Your task to perform on an android device: What's the weather going to be tomorrow? Image 0: 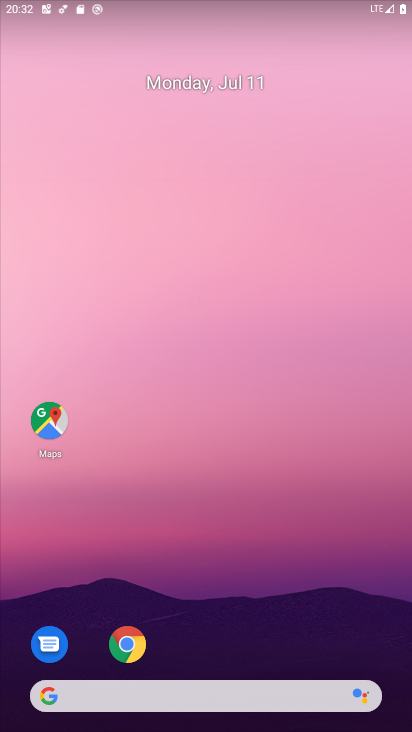
Step 0: drag from (255, 637) to (247, 1)
Your task to perform on an android device: What's the weather going to be tomorrow? Image 1: 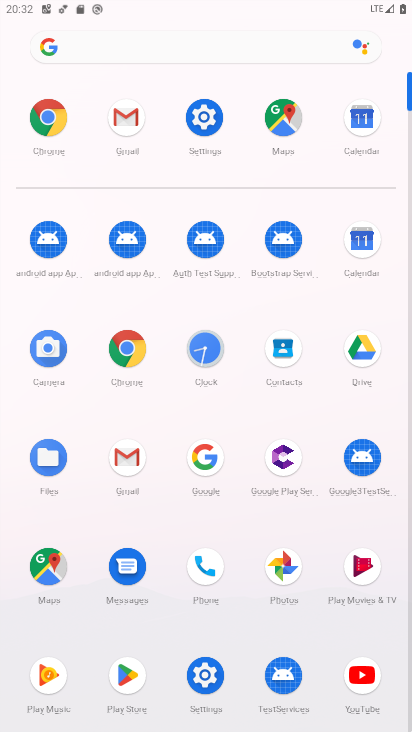
Step 1: click (44, 122)
Your task to perform on an android device: What's the weather going to be tomorrow? Image 2: 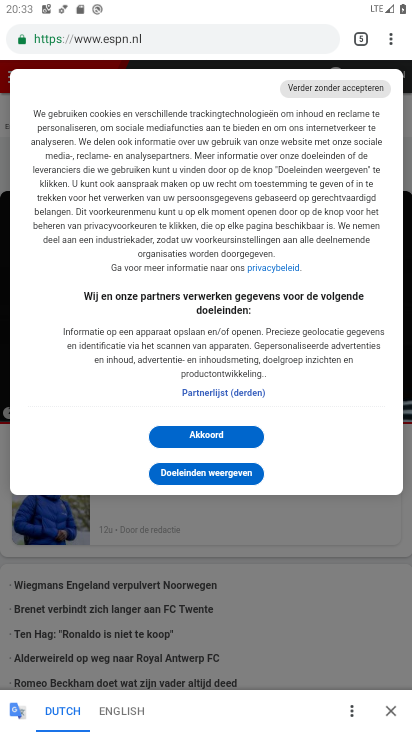
Step 2: click (395, 43)
Your task to perform on an android device: What's the weather going to be tomorrow? Image 3: 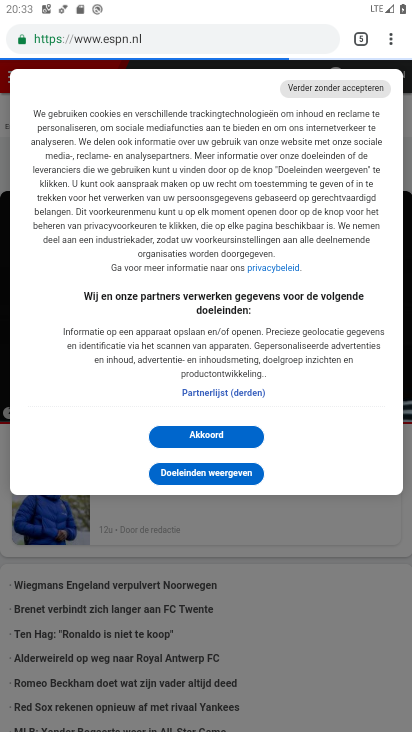
Step 3: click (386, 37)
Your task to perform on an android device: What's the weather going to be tomorrow? Image 4: 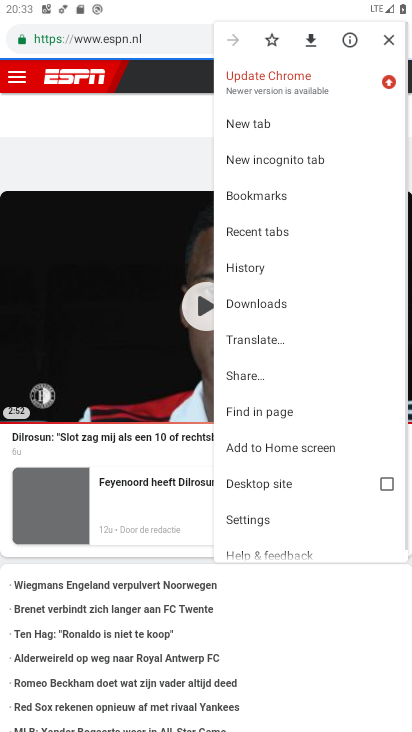
Step 4: click (266, 130)
Your task to perform on an android device: What's the weather going to be tomorrow? Image 5: 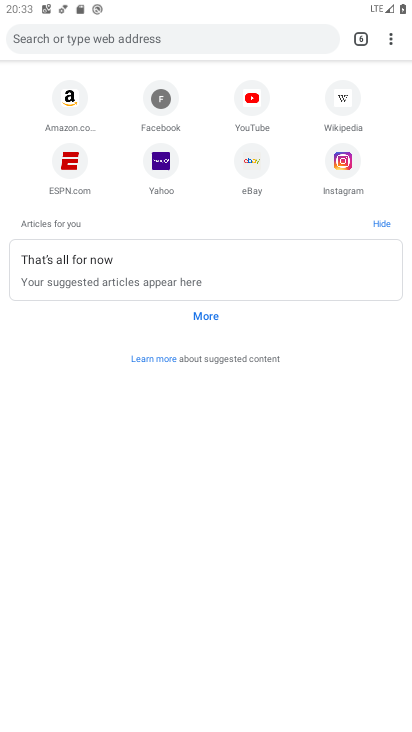
Step 5: click (120, 33)
Your task to perform on an android device: What's the weather going to be tomorrow? Image 6: 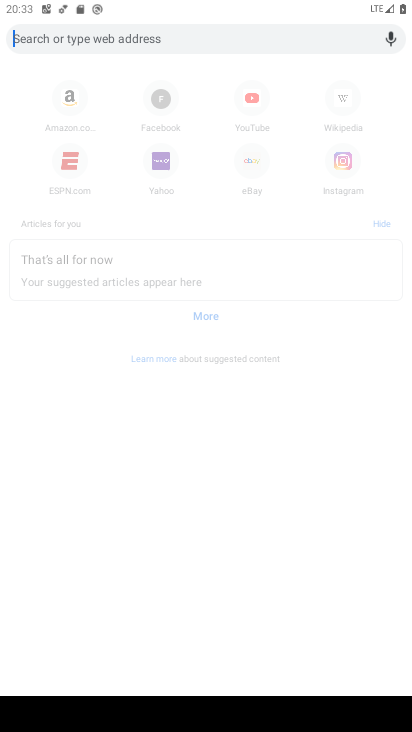
Step 6: type "What's the weather going to be tomorrow "
Your task to perform on an android device: What's the weather going to be tomorrow? Image 7: 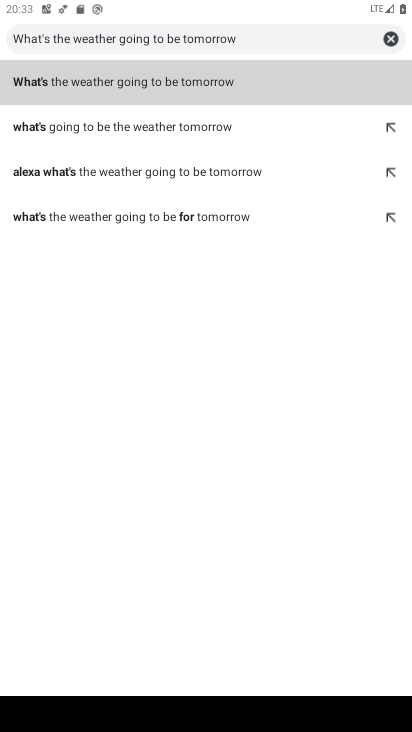
Step 7: click (152, 74)
Your task to perform on an android device: What's the weather going to be tomorrow? Image 8: 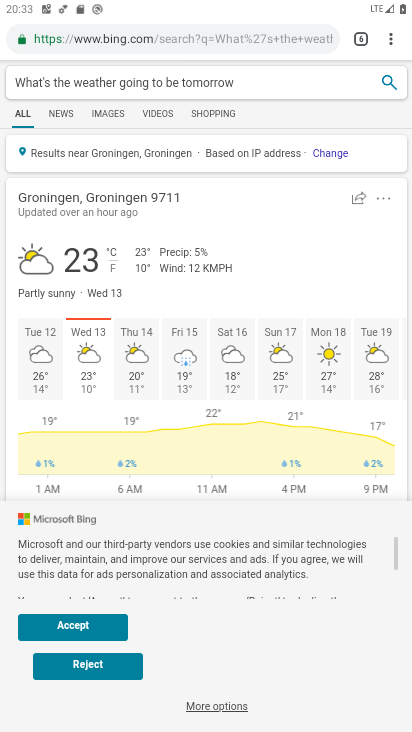
Step 8: task complete